Your task to perform on an android device: turn smart compose on in the gmail app Image 0: 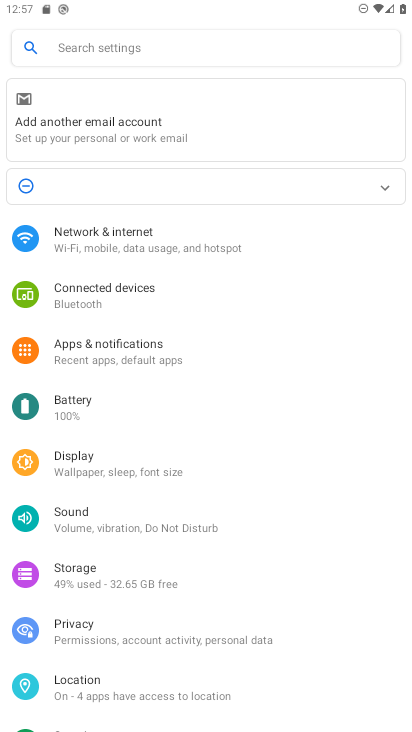
Step 0: press home button
Your task to perform on an android device: turn smart compose on in the gmail app Image 1: 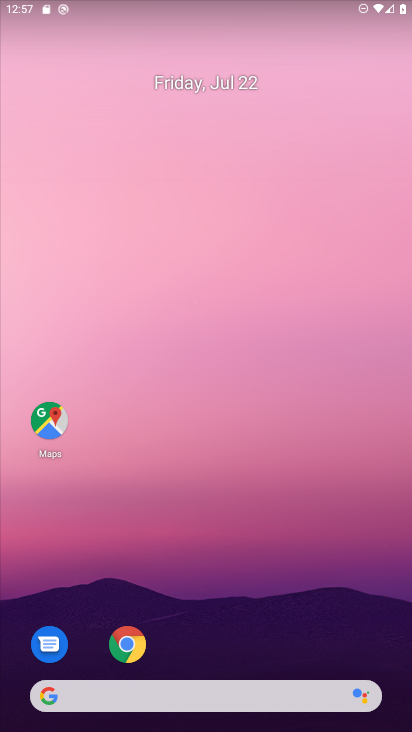
Step 1: drag from (191, 639) to (125, 53)
Your task to perform on an android device: turn smart compose on in the gmail app Image 2: 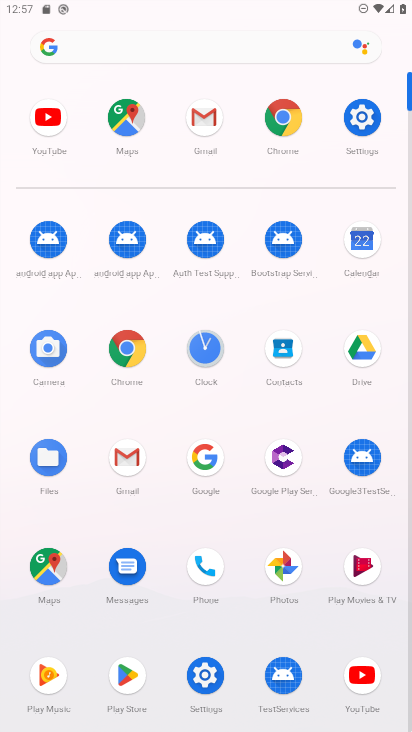
Step 2: click (211, 105)
Your task to perform on an android device: turn smart compose on in the gmail app Image 3: 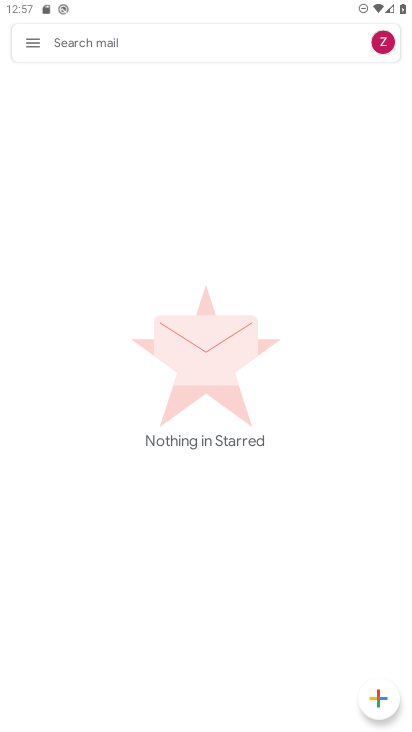
Step 3: click (32, 38)
Your task to perform on an android device: turn smart compose on in the gmail app Image 4: 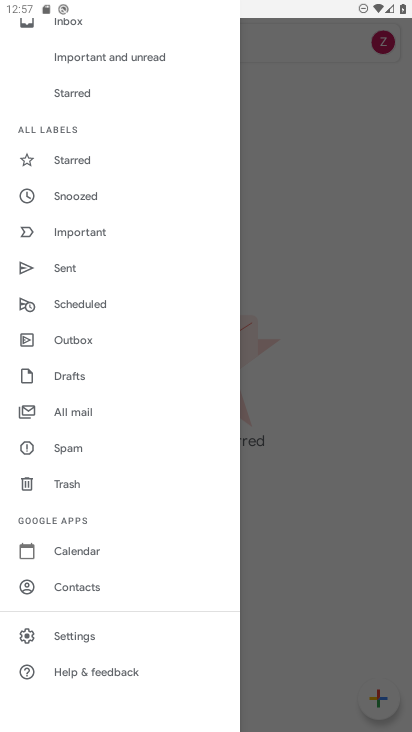
Step 4: click (80, 632)
Your task to perform on an android device: turn smart compose on in the gmail app Image 5: 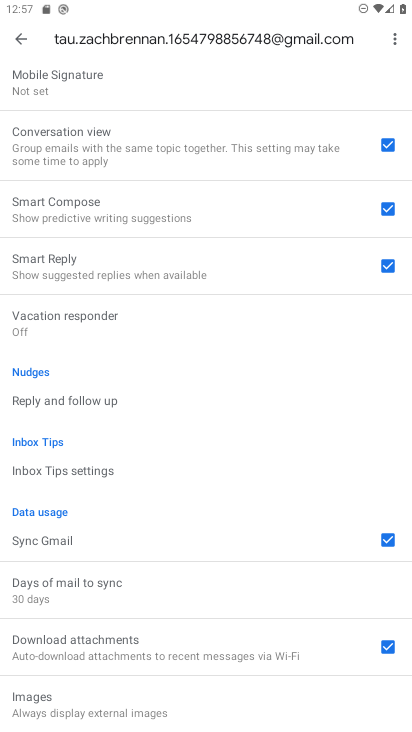
Step 5: task complete